Your task to perform on an android device: turn off location Image 0: 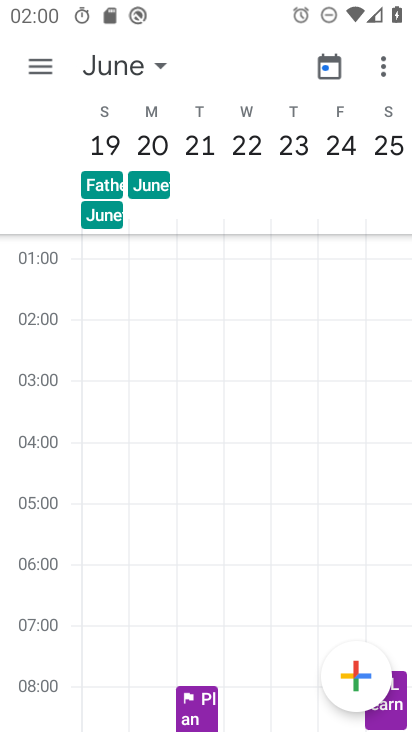
Step 0: press home button
Your task to perform on an android device: turn off location Image 1: 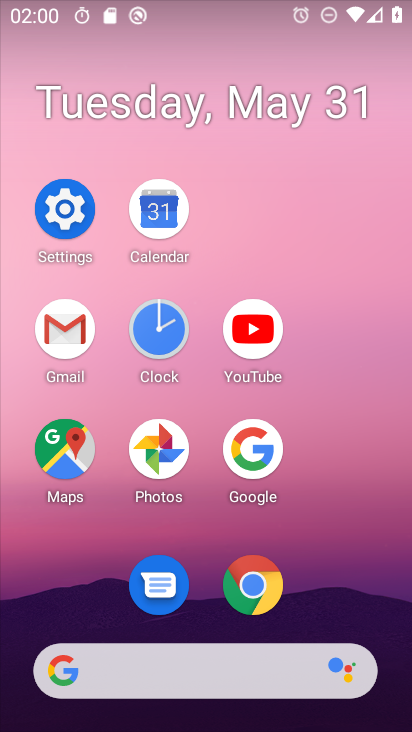
Step 1: click (54, 213)
Your task to perform on an android device: turn off location Image 2: 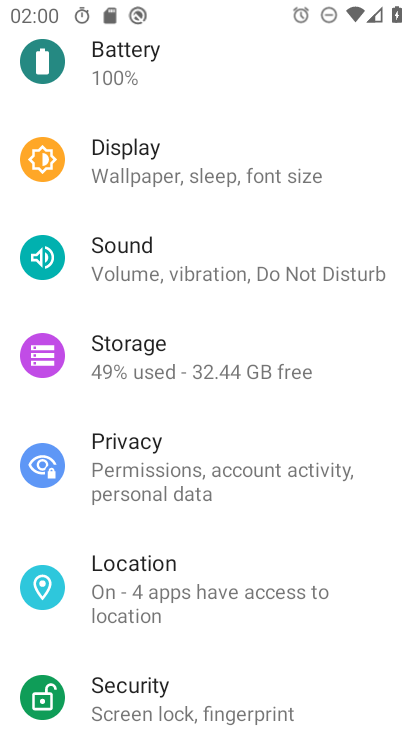
Step 2: drag from (218, 643) to (193, 343)
Your task to perform on an android device: turn off location Image 3: 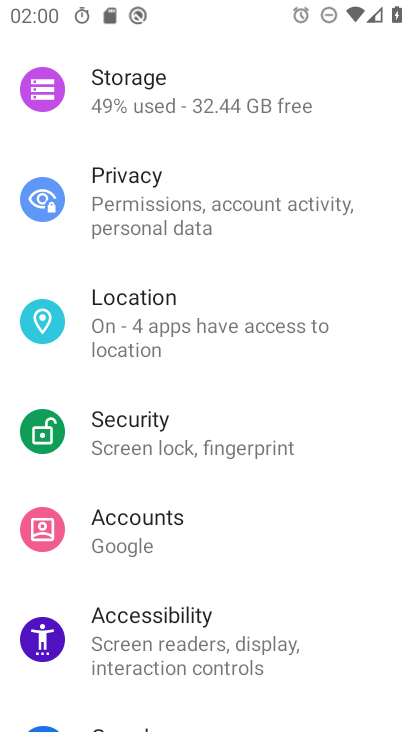
Step 3: click (193, 336)
Your task to perform on an android device: turn off location Image 4: 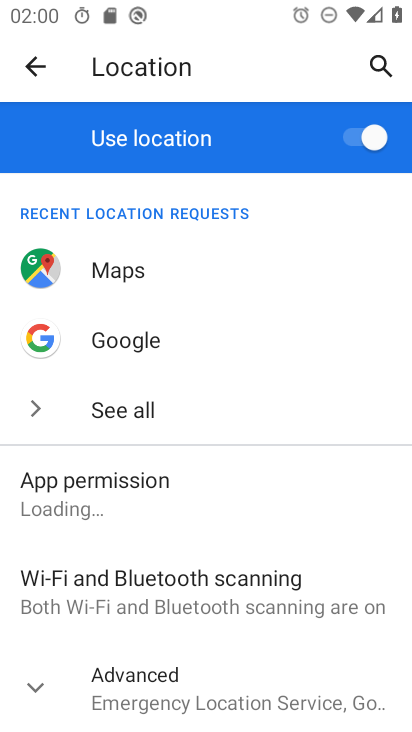
Step 4: click (362, 136)
Your task to perform on an android device: turn off location Image 5: 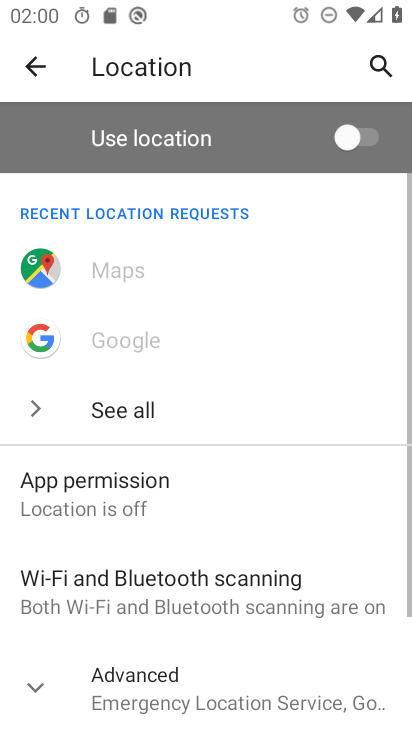
Step 5: task complete